Your task to perform on an android device: toggle wifi Image 0: 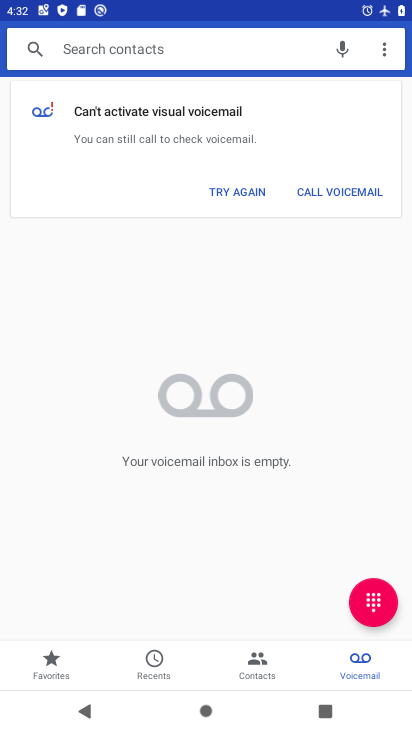
Step 0: press home button
Your task to perform on an android device: toggle wifi Image 1: 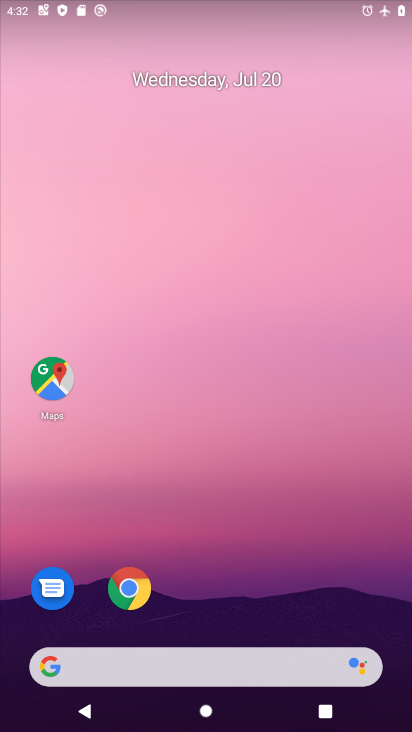
Step 1: drag from (280, 559) to (255, 108)
Your task to perform on an android device: toggle wifi Image 2: 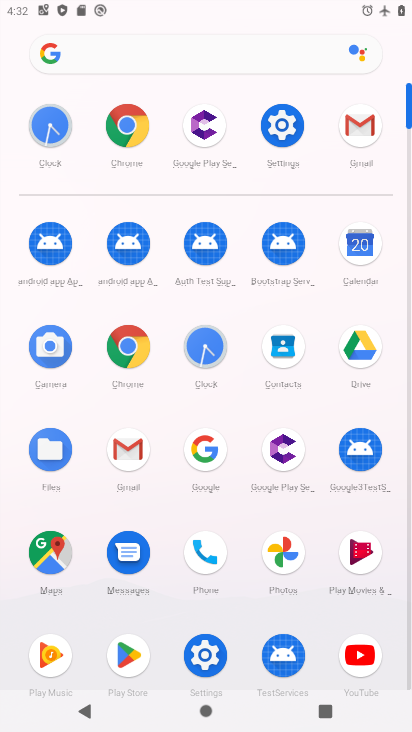
Step 2: click (287, 123)
Your task to perform on an android device: toggle wifi Image 3: 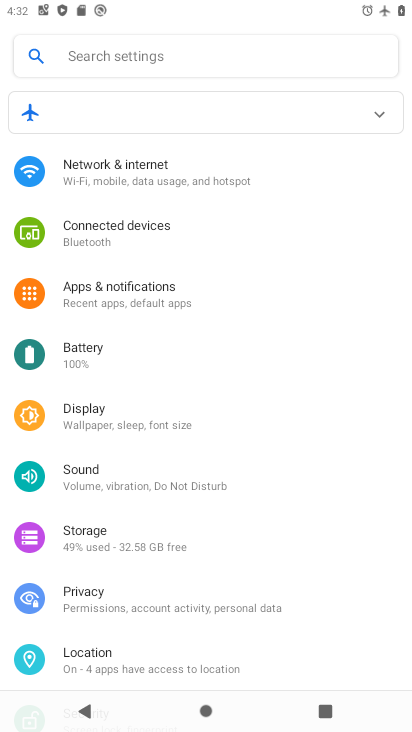
Step 3: click (155, 172)
Your task to perform on an android device: toggle wifi Image 4: 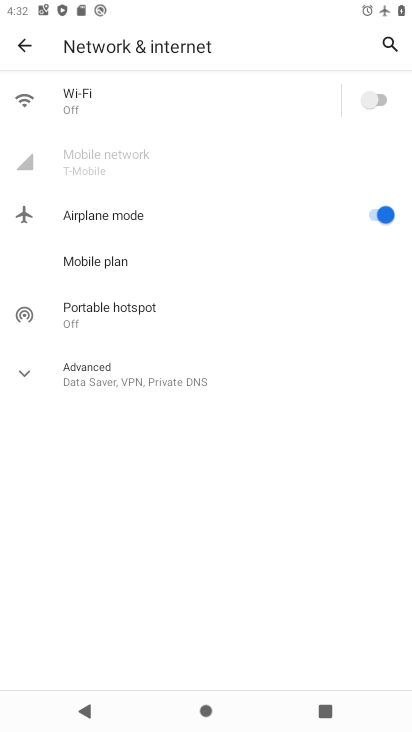
Step 4: click (225, 103)
Your task to perform on an android device: toggle wifi Image 5: 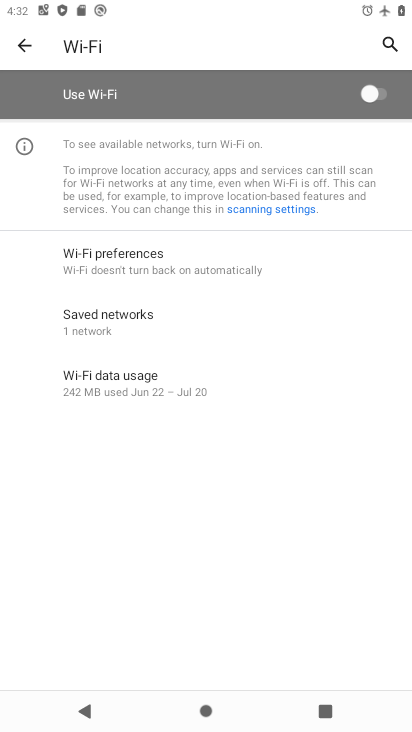
Step 5: click (359, 97)
Your task to perform on an android device: toggle wifi Image 6: 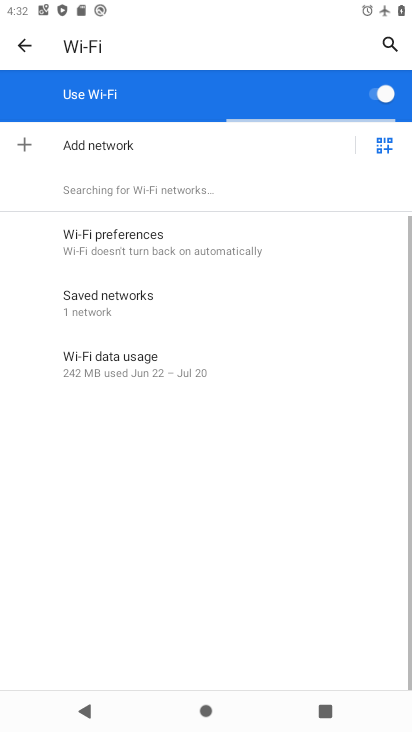
Step 6: task complete